Your task to perform on an android device: see creations saved in the google photos Image 0: 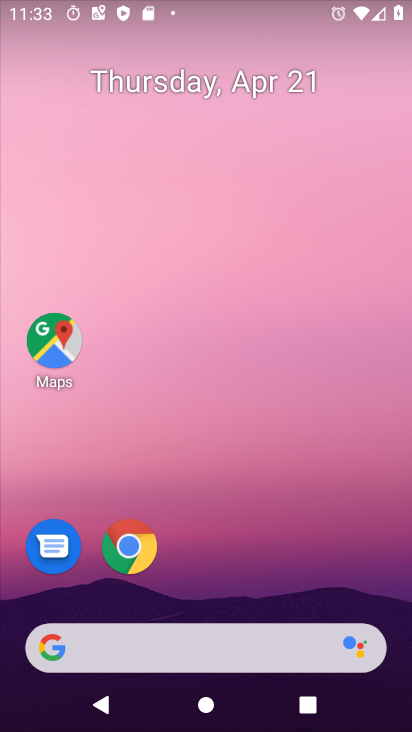
Step 0: drag from (248, 554) to (197, 85)
Your task to perform on an android device: see creations saved in the google photos Image 1: 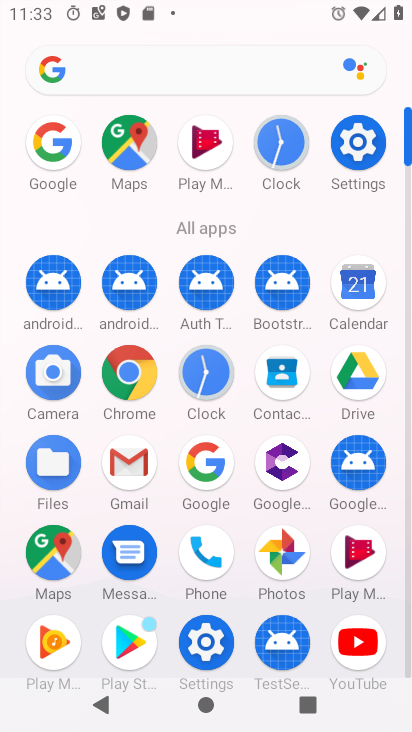
Step 1: click (285, 550)
Your task to perform on an android device: see creations saved in the google photos Image 2: 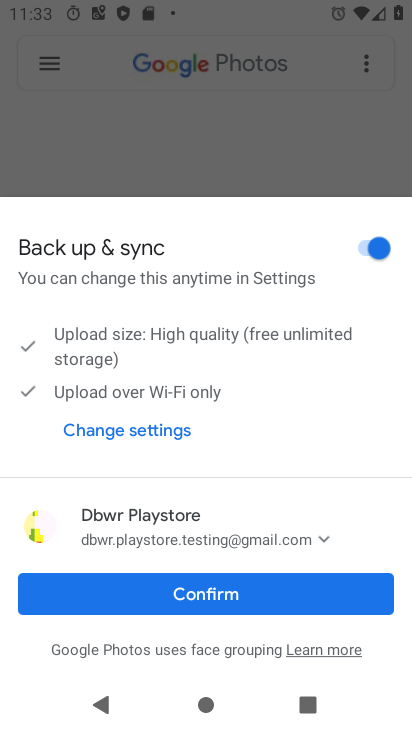
Step 2: click (236, 605)
Your task to perform on an android device: see creations saved in the google photos Image 3: 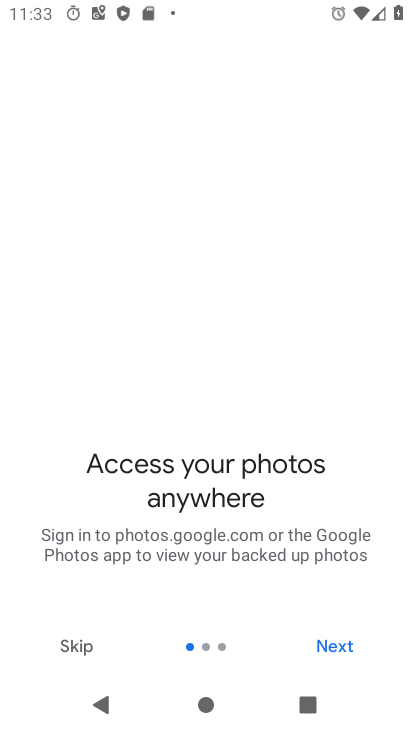
Step 3: click (315, 646)
Your task to perform on an android device: see creations saved in the google photos Image 4: 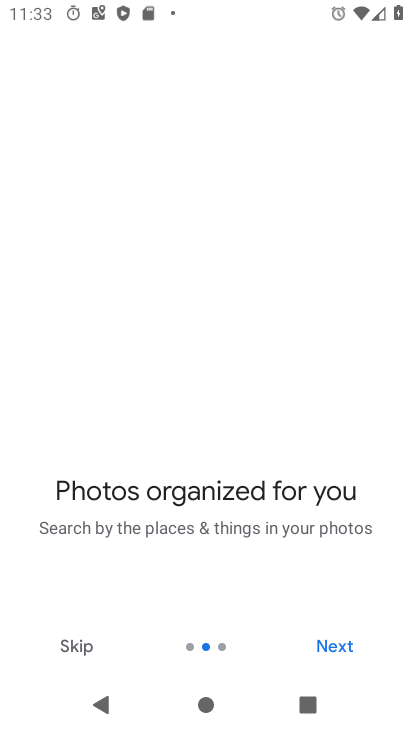
Step 4: click (321, 646)
Your task to perform on an android device: see creations saved in the google photos Image 5: 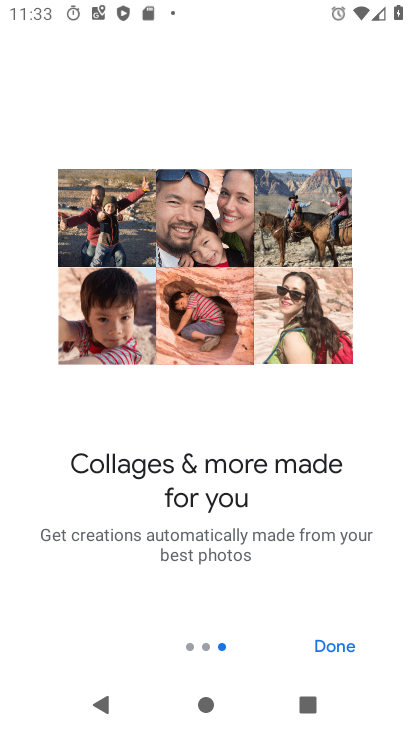
Step 5: click (322, 646)
Your task to perform on an android device: see creations saved in the google photos Image 6: 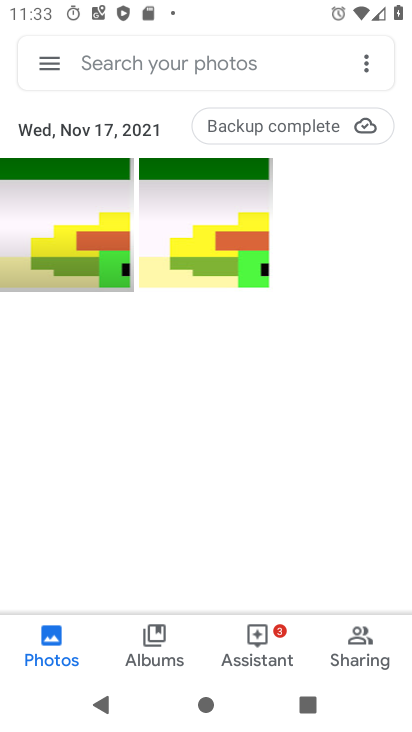
Step 6: click (187, 74)
Your task to perform on an android device: see creations saved in the google photos Image 7: 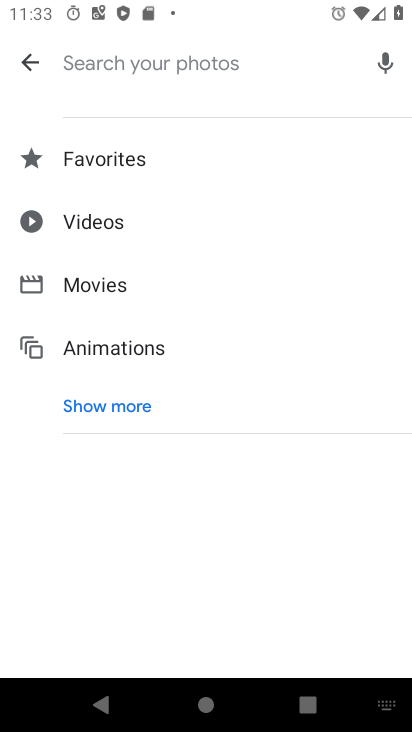
Step 7: click (131, 410)
Your task to perform on an android device: see creations saved in the google photos Image 8: 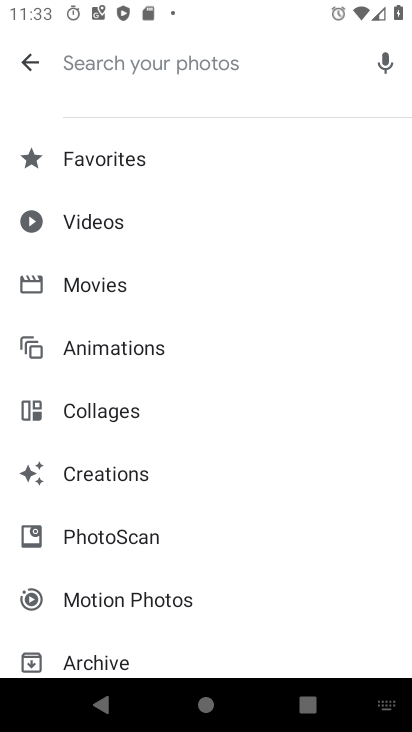
Step 8: click (135, 470)
Your task to perform on an android device: see creations saved in the google photos Image 9: 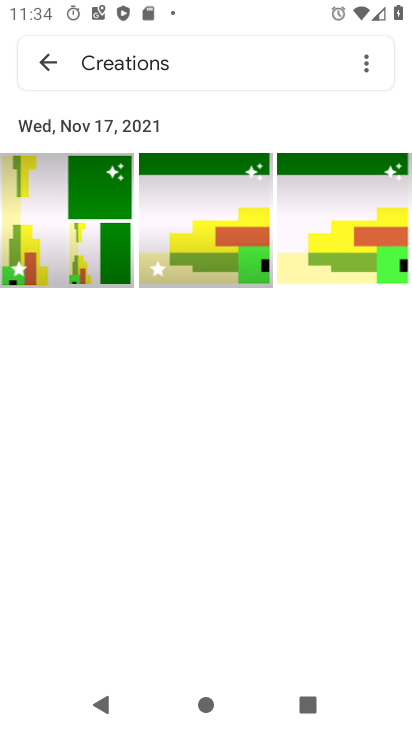
Step 9: task complete